Your task to perform on an android device: add a label to a message in the gmail app Image 0: 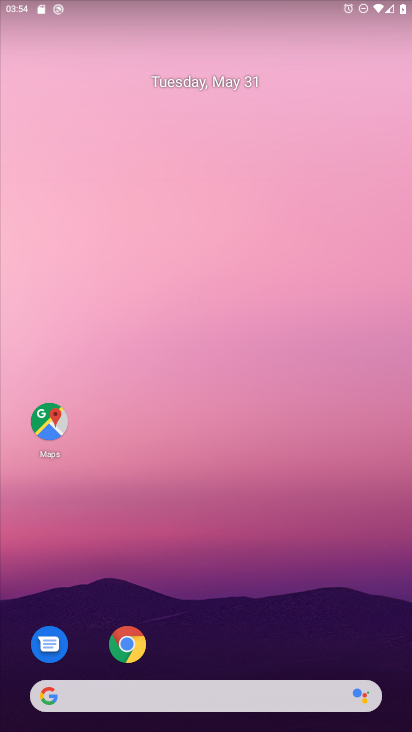
Step 0: drag from (194, 593) to (232, 138)
Your task to perform on an android device: add a label to a message in the gmail app Image 1: 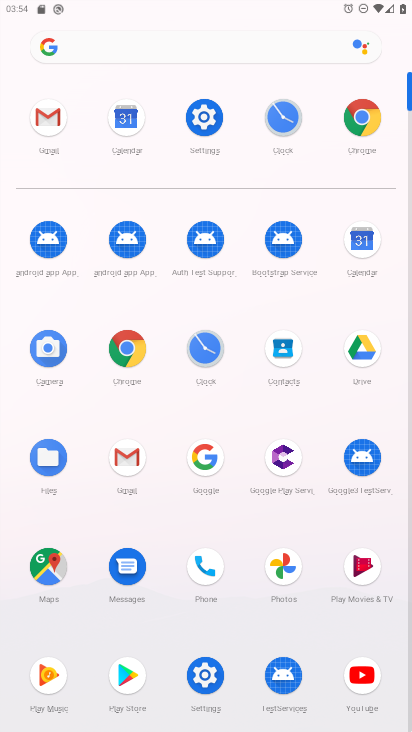
Step 1: click (130, 457)
Your task to perform on an android device: add a label to a message in the gmail app Image 2: 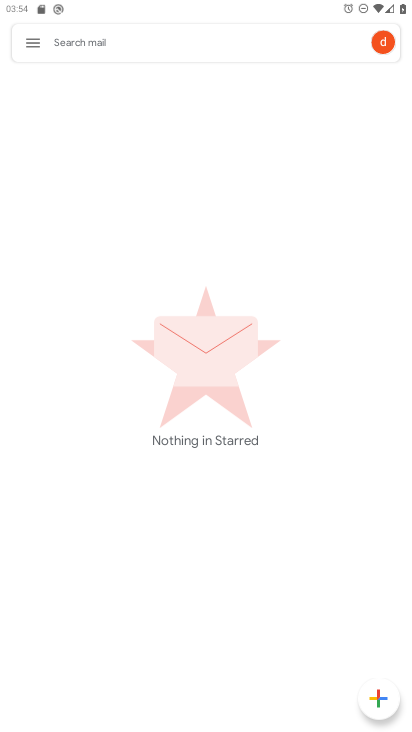
Step 2: click (33, 35)
Your task to perform on an android device: add a label to a message in the gmail app Image 3: 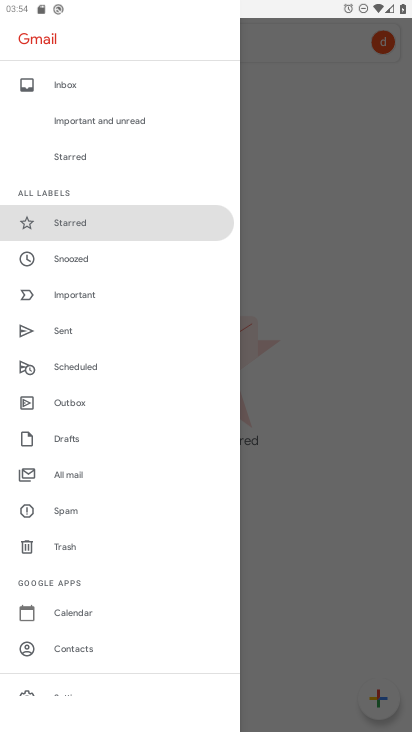
Step 3: click (66, 479)
Your task to perform on an android device: add a label to a message in the gmail app Image 4: 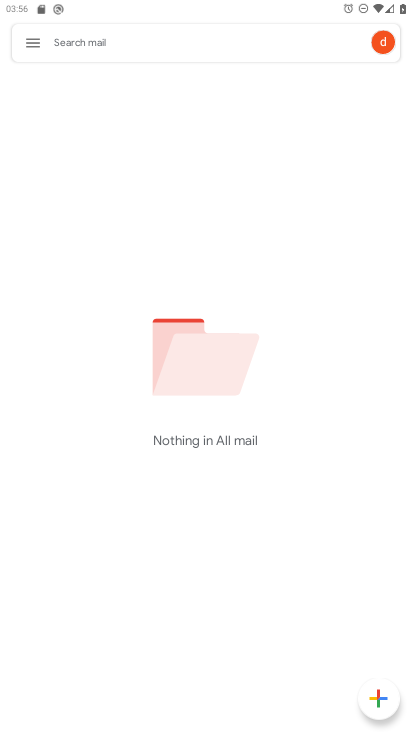
Step 4: task complete